Your task to perform on an android device: Go to Yahoo.com Image 0: 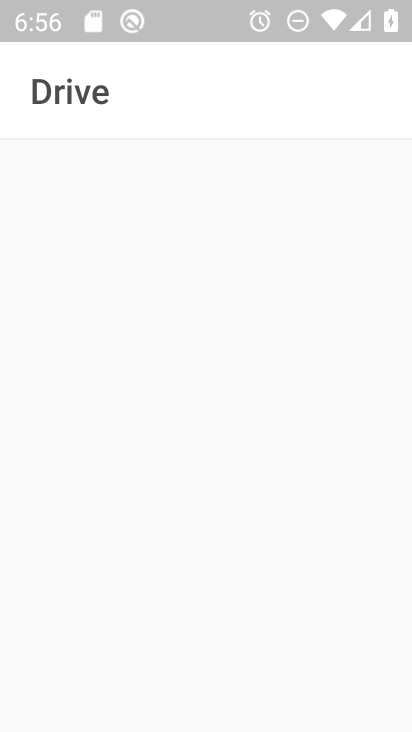
Step 0: press home button
Your task to perform on an android device: Go to Yahoo.com Image 1: 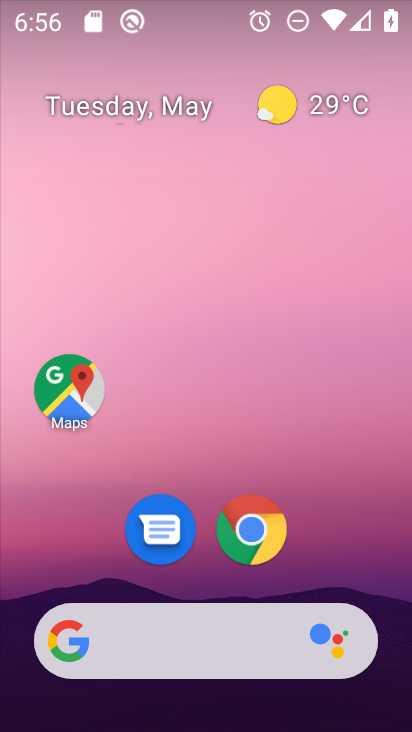
Step 1: drag from (383, 599) to (249, 137)
Your task to perform on an android device: Go to Yahoo.com Image 2: 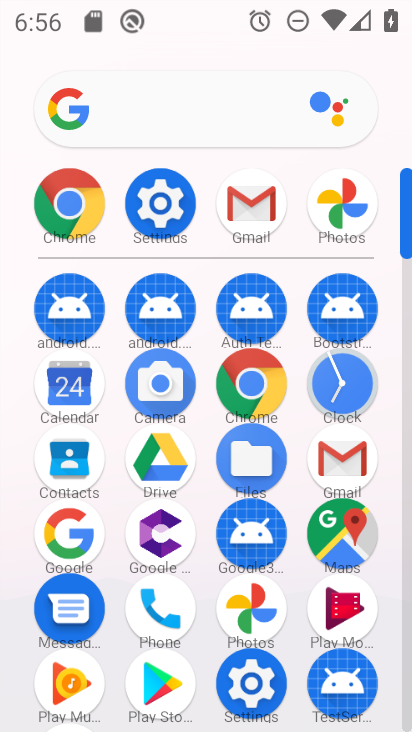
Step 2: click (99, 206)
Your task to perform on an android device: Go to Yahoo.com Image 3: 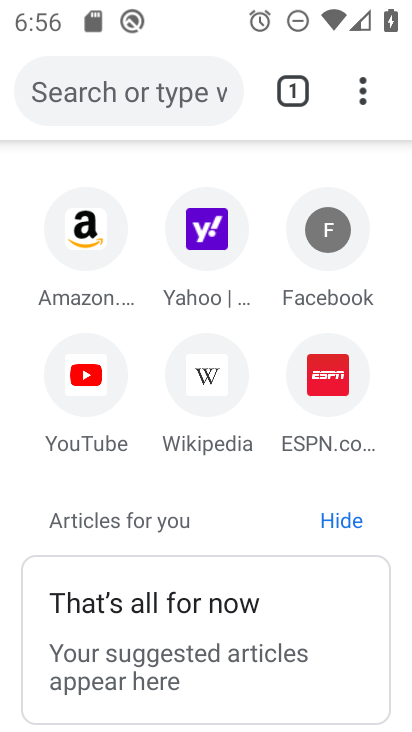
Step 3: click (183, 228)
Your task to perform on an android device: Go to Yahoo.com Image 4: 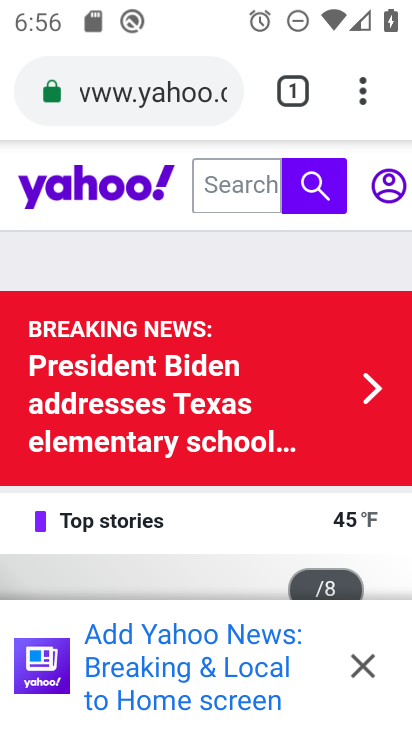
Step 4: task complete